Your task to perform on an android device: change keyboard looks Image 0: 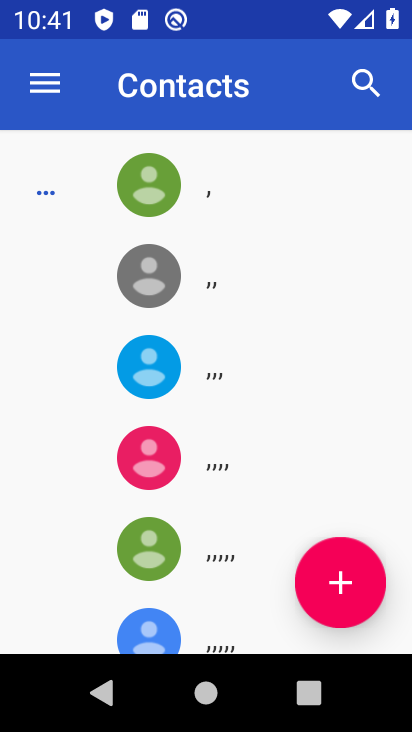
Step 0: press home button
Your task to perform on an android device: change keyboard looks Image 1: 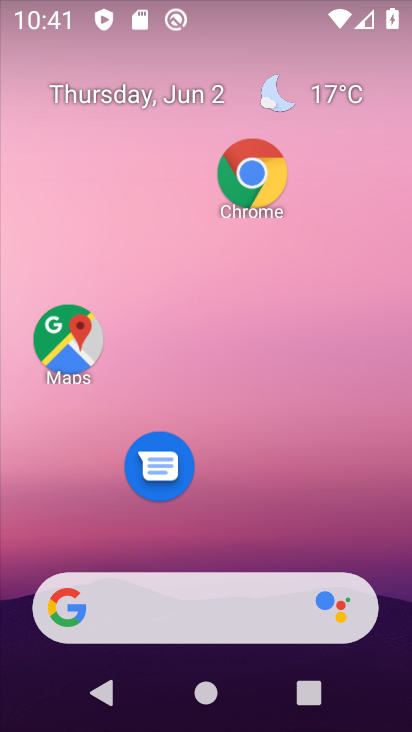
Step 1: drag from (216, 535) to (164, 77)
Your task to perform on an android device: change keyboard looks Image 2: 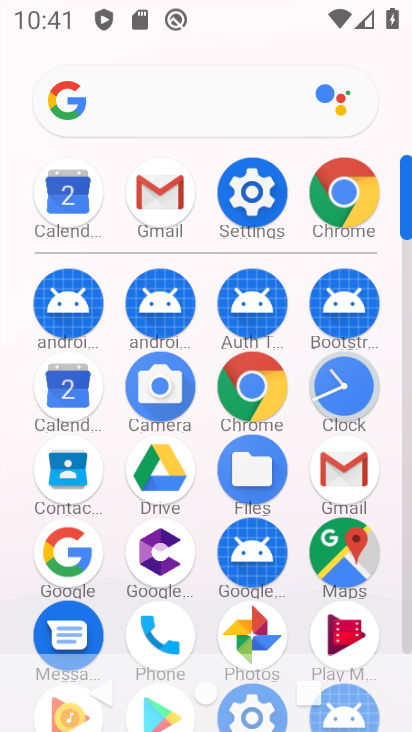
Step 2: click (257, 198)
Your task to perform on an android device: change keyboard looks Image 3: 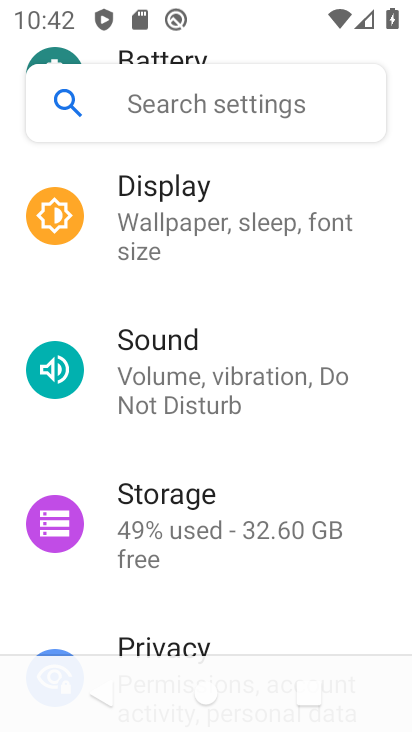
Step 3: drag from (302, 594) to (283, 103)
Your task to perform on an android device: change keyboard looks Image 4: 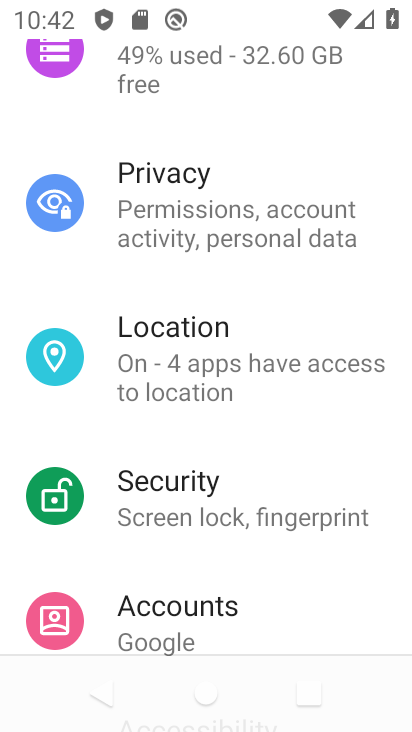
Step 4: drag from (271, 564) to (238, 118)
Your task to perform on an android device: change keyboard looks Image 5: 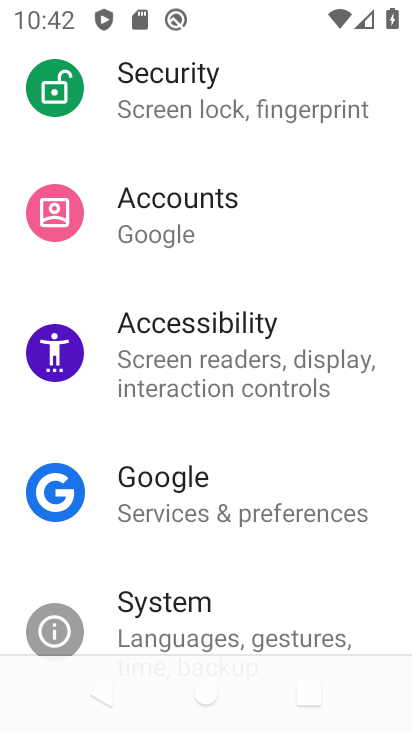
Step 5: click (160, 603)
Your task to perform on an android device: change keyboard looks Image 6: 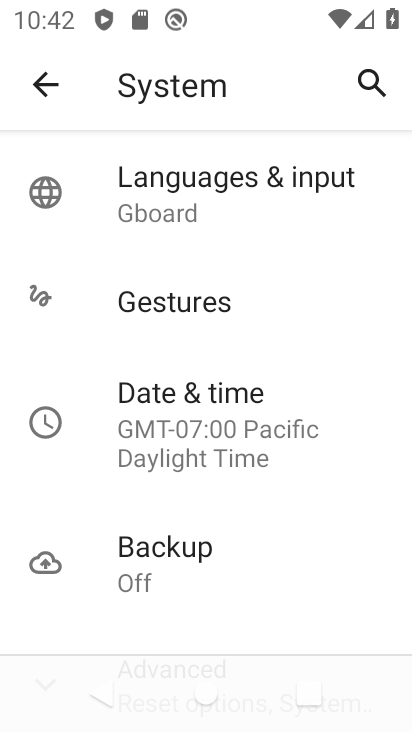
Step 6: click (220, 174)
Your task to perform on an android device: change keyboard looks Image 7: 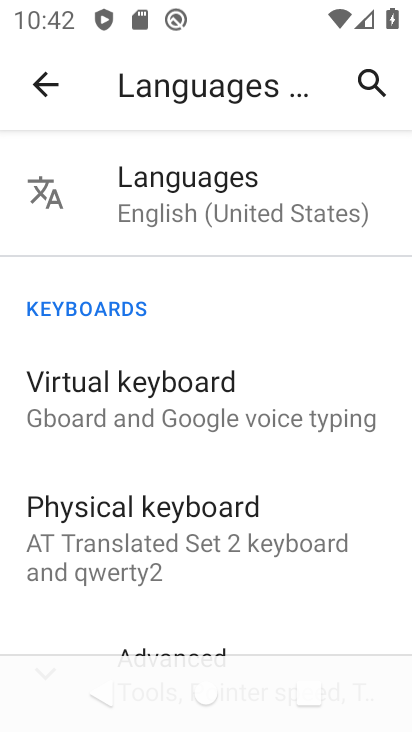
Step 7: click (148, 384)
Your task to perform on an android device: change keyboard looks Image 8: 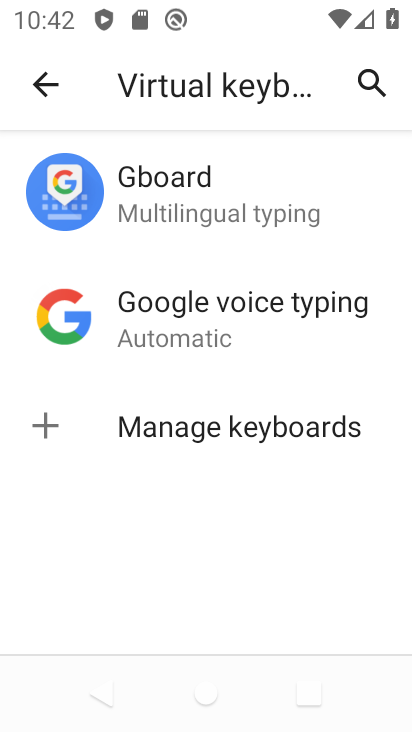
Step 8: click (167, 212)
Your task to perform on an android device: change keyboard looks Image 9: 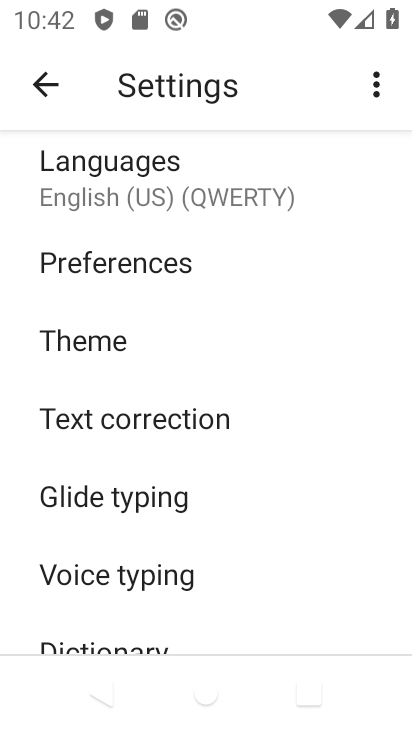
Step 9: click (90, 346)
Your task to perform on an android device: change keyboard looks Image 10: 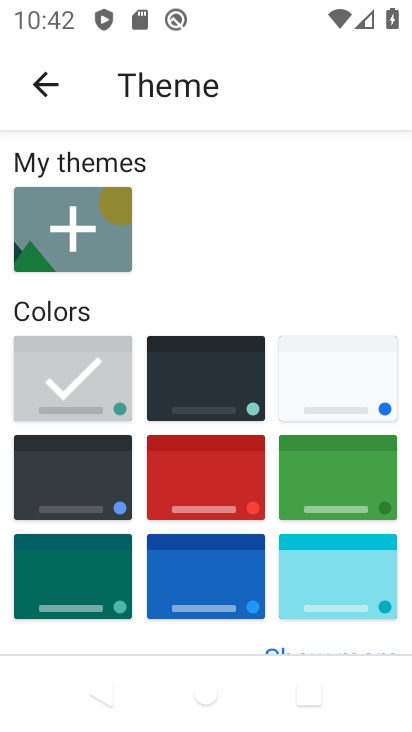
Step 10: click (185, 370)
Your task to perform on an android device: change keyboard looks Image 11: 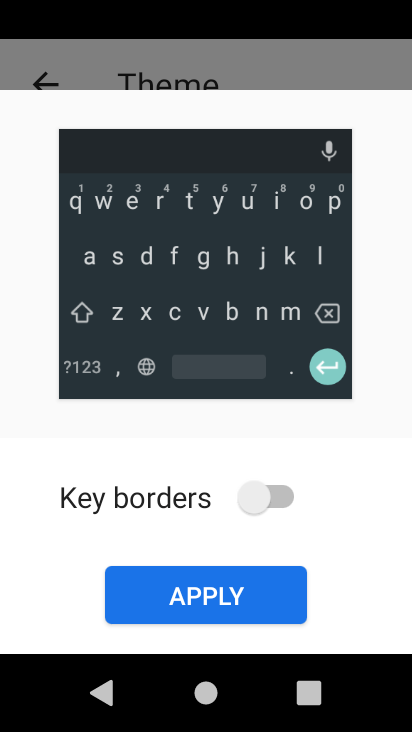
Step 11: click (256, 597)
Your task to perform on an android device: change keyboard looks Image 12: 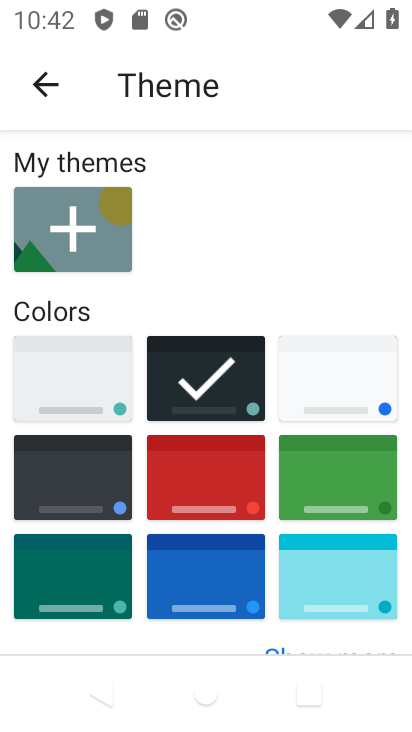
Step 12: task complete